Your task to perform on an android device: clear all cookies in the chrome app Image 0: 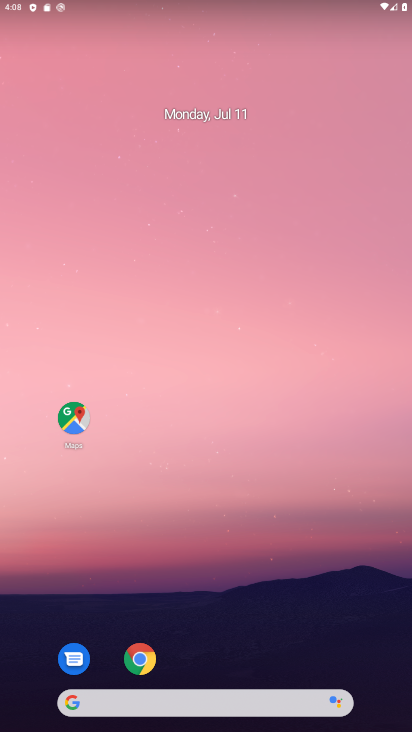
Step 0: click (148, 660)
Your task to perform on an android device: clear all cookies in the chrome app Image 1: 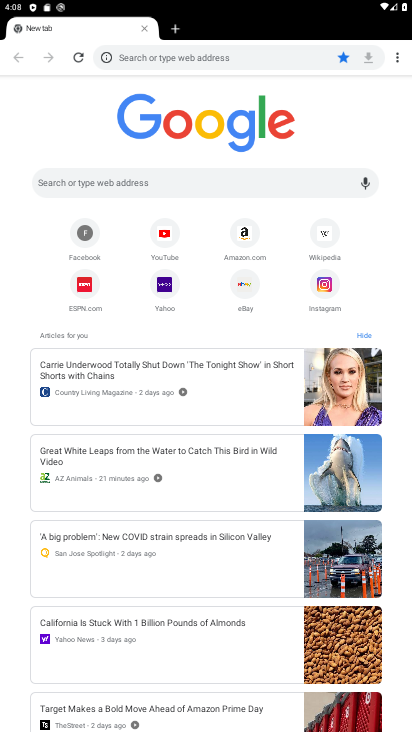
Step 1: click (391, 51)
Your task to perform on an android device: clear all cookies in the chrome app Image 2: 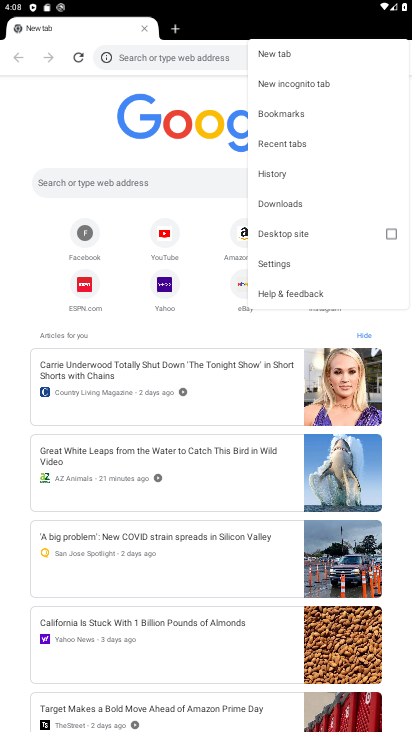
Step 2: click (300, 185)
Your task to perform on an android device: clear all cookies in the chrome app Image 3: 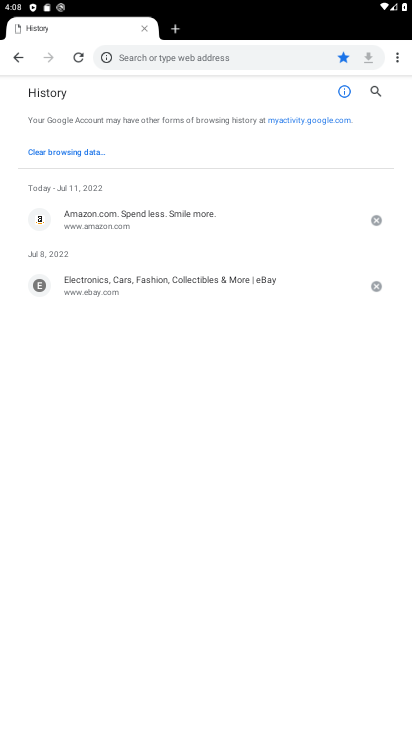
Step 3: click (91, 154)
Your task to perform on an android device: clear all cookies in the chrome app Image 4: 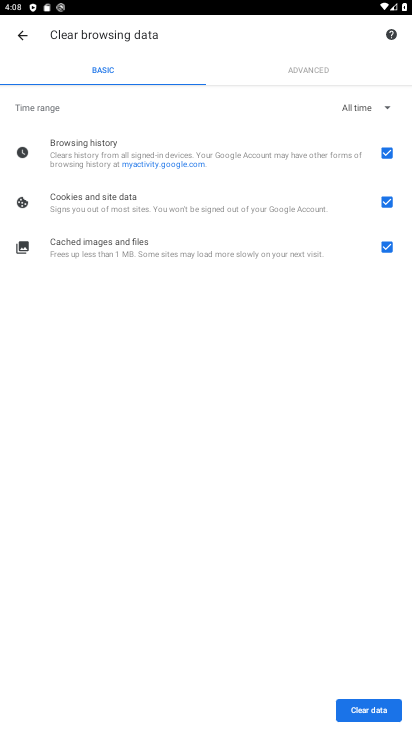
Step 4: click (388, 154)
Your task to perform on an android device: clear all cookies in the chrome app Image 5: 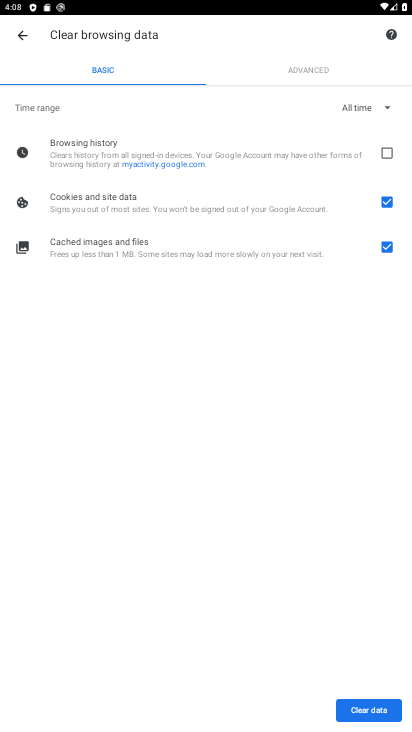
Step 5: click (384, 247)
Your task to perform on an android device: clear all cookies in the chrome app Image 6: 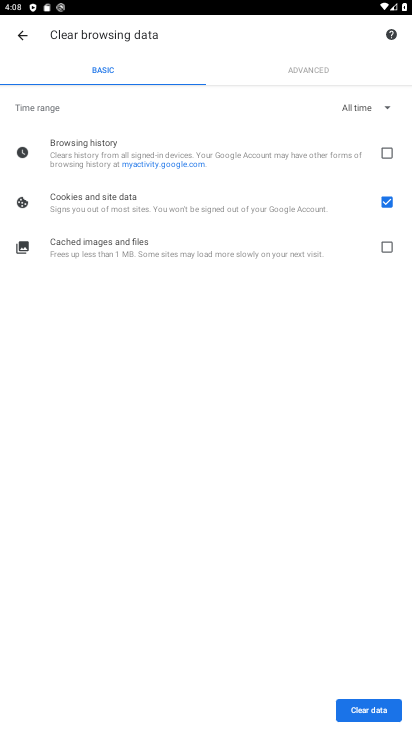
Step 6: click (353, 713)
Your task to perform on an android device: clear all cookies in the chrome app Image 7: 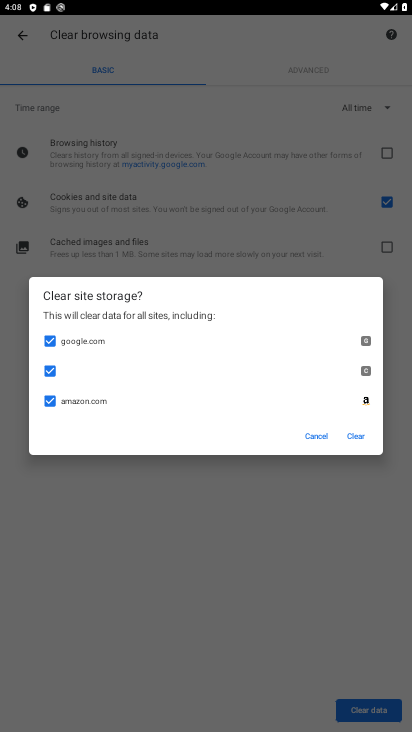
Step 7: click (355, 438)
Your task to perform on an android device: clear all cookies in the chrome app Image 8: 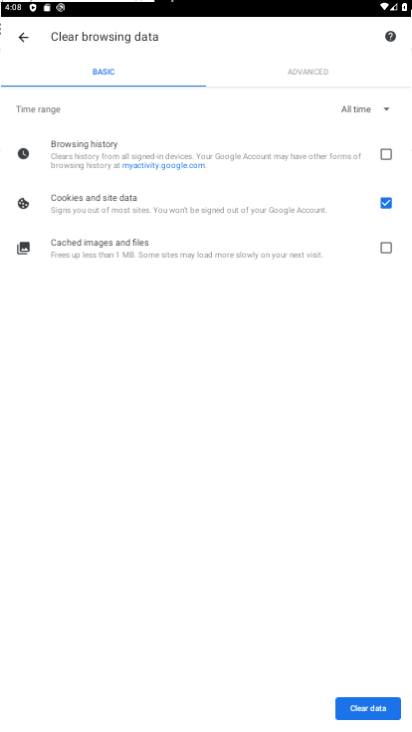
Step 8: task complete